Your task to perform on an android device: Go to settings Image 0: 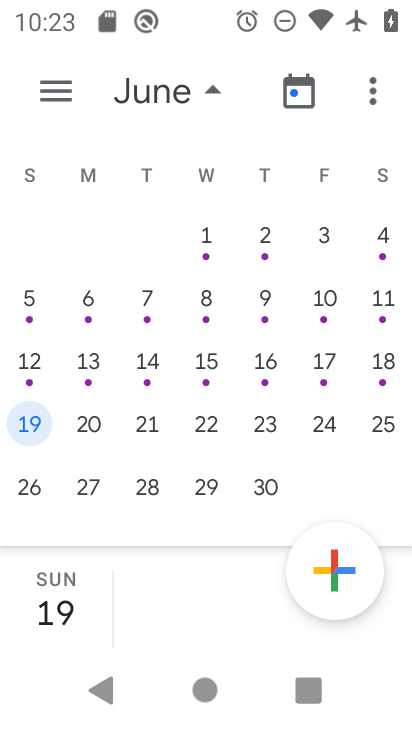
Step 0: press home button
Your task to perform on an android device: Go to settings Image 1: 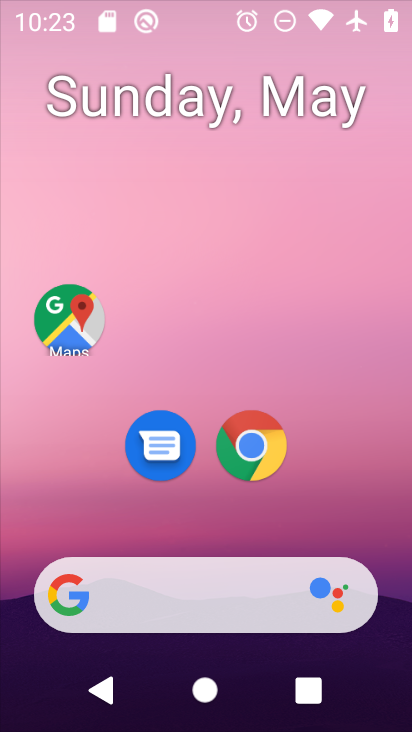
Step 1: drag from (213, 568) to (252, 281)
Your task to perform on an android device: Go to settings Image 2: 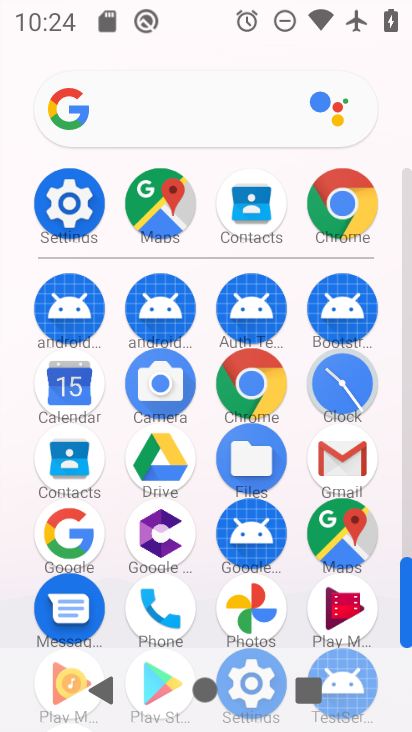
Step 2: click (88, 214)
Your task to perform on an android device: Go to settings Image 3: 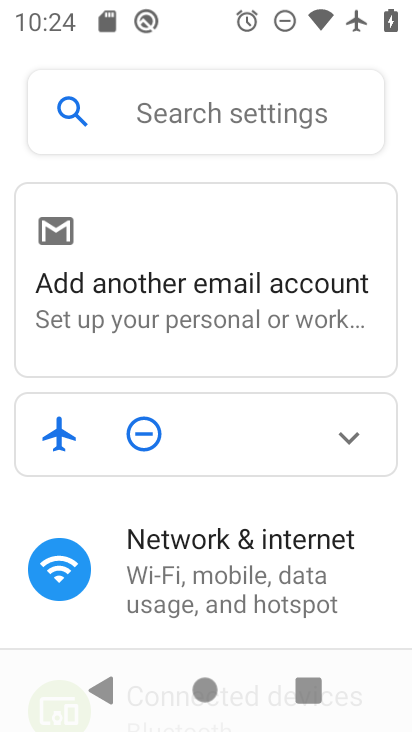
Step 3: task complete